Your task to perform on an android device: What's the weather going to be this weekend? Image 0: 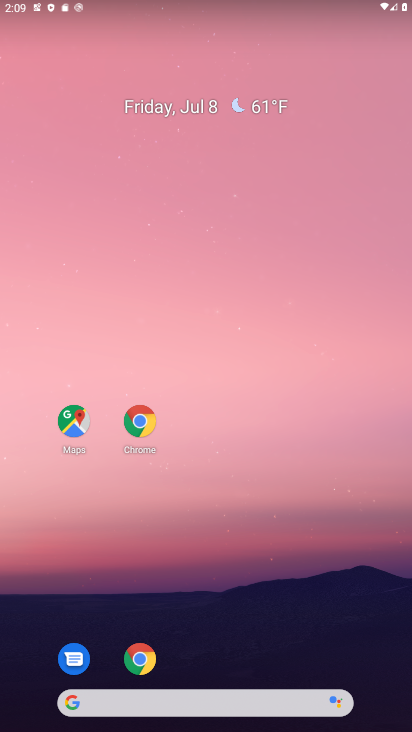
Step 0: click (186, 687)
Your task to perform on an android device: What's the weather going to be this weekend? Image 1: 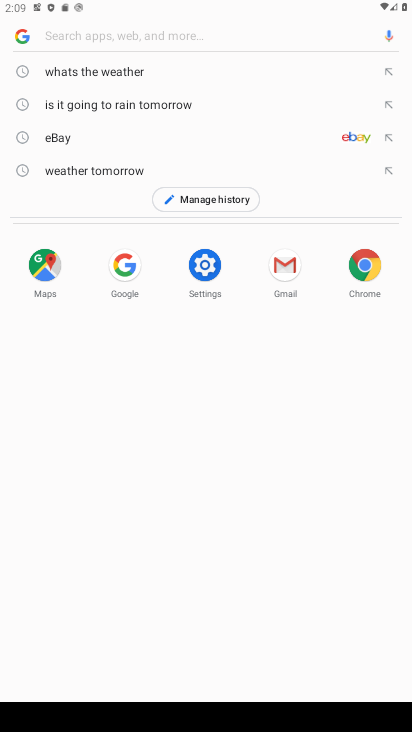
Step 1: click (106, 84)
Your task to perform on an android device: What's the weather going to be this weekend? Image 2: 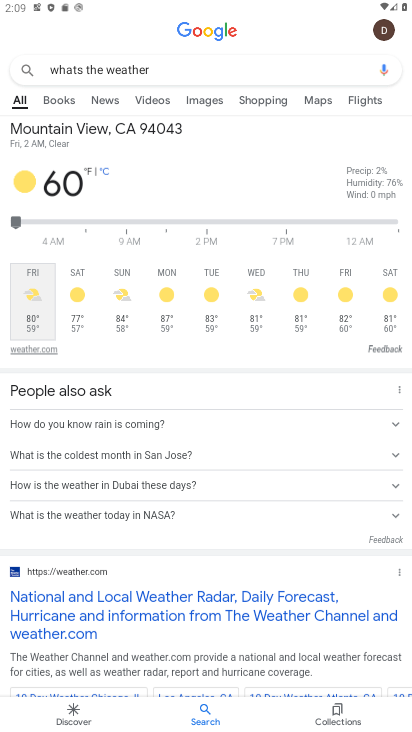
Step 2: task complete